Your task to perform on an android device: turn off notifications in google photos Image 0: 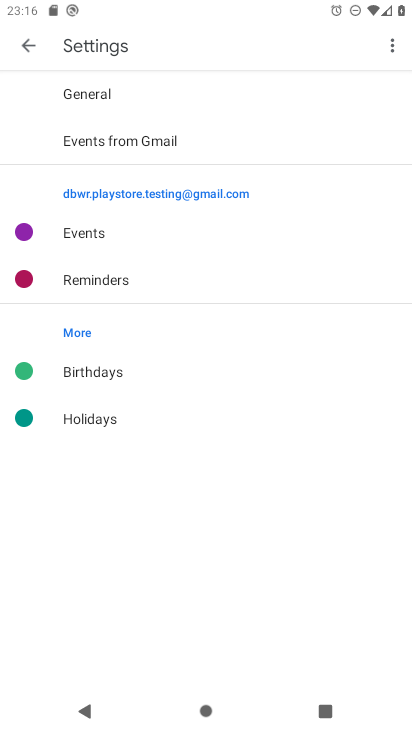
Step 0: press home button
Your task to perform on an android device: turn off notifications in google photos Image 1: 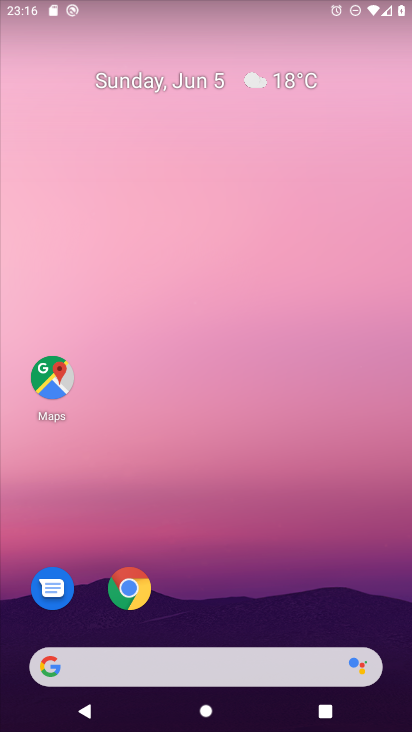
Step 1: drag from (301, 577) to (351, 161)
Your task to perform on an android device: turn off notifications in google photos Image 2: 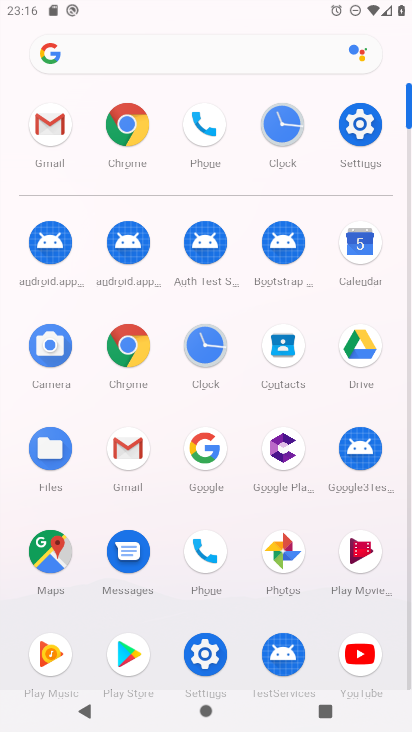
Step 2: click (289, 543)
Your task to perform on an android device: turn off notifications in google photos Image 3: 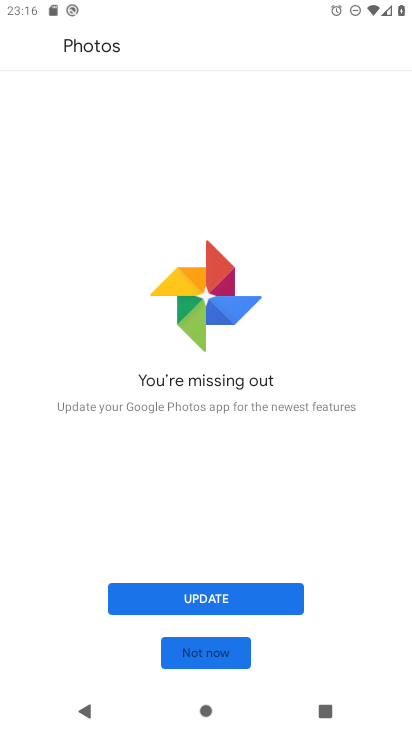
Step 3: click (267, 603)
Your task to perform on an android device: turn off notifications in google photos Image 4: 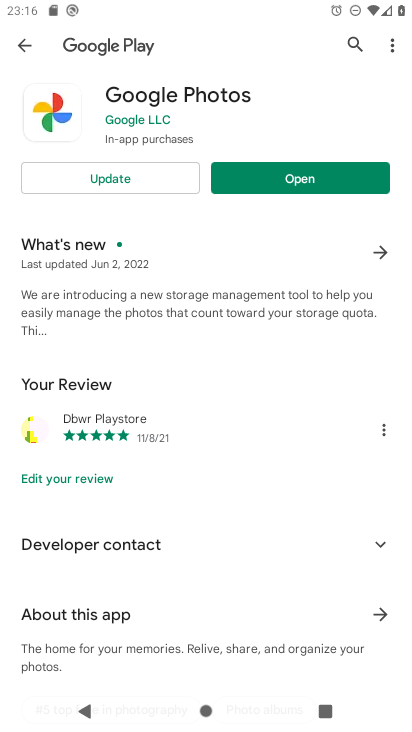
Step 4: click (131, 173)
Your task to perform on an android device: turn off notifications in google photos Image 5: 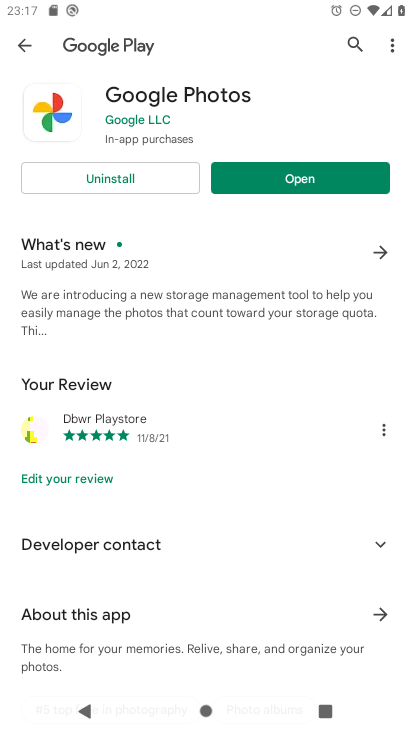
Step 5: click (322, 169)
Your task to perform on an android device: turn off notifications in google photos Image 6: 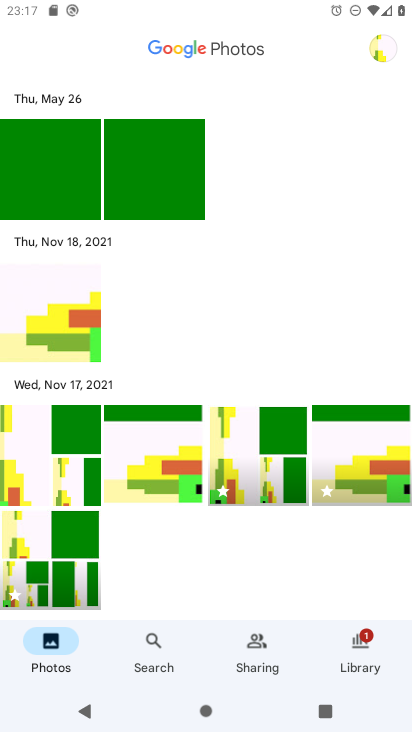
Step 6: click (388, 52)
Your task to perform on an android device: turn off notifications in google photos Image 7: 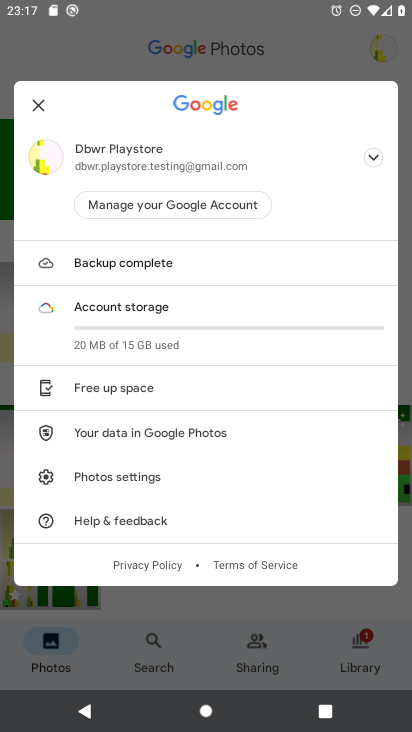
Step 7: click (153, 475)
Your task to perform on an android device: turn off notifications in google photos Image 8: 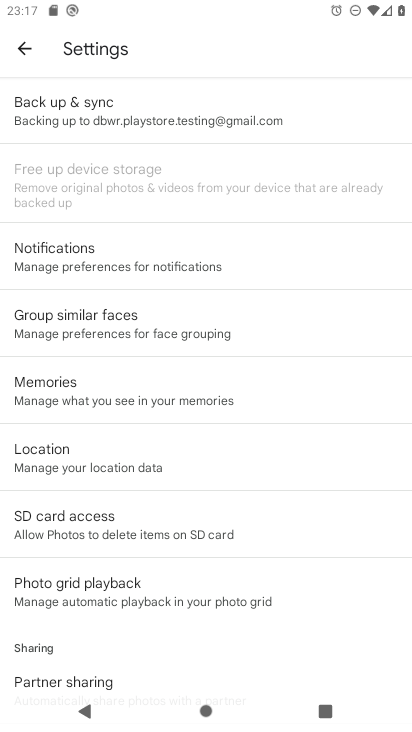
Step 8: click (243, 274)
Your task to perform on an android device: turn off notifications in google photos Image 9: 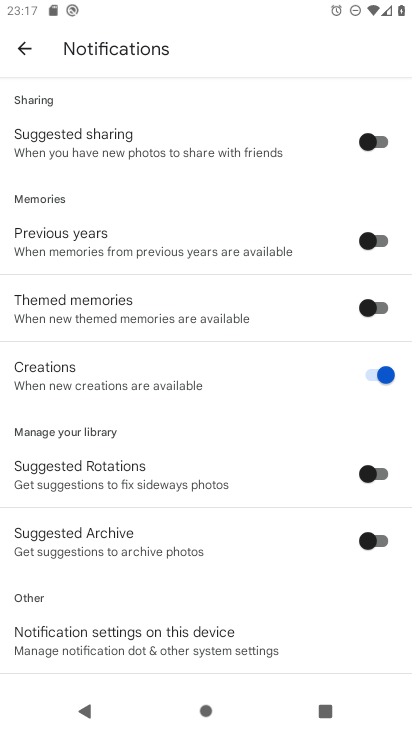
Step 9: drag from (263, 487) to (276, 355)
Your task to perform on an android device: turn off notifications in google photos Image 10: 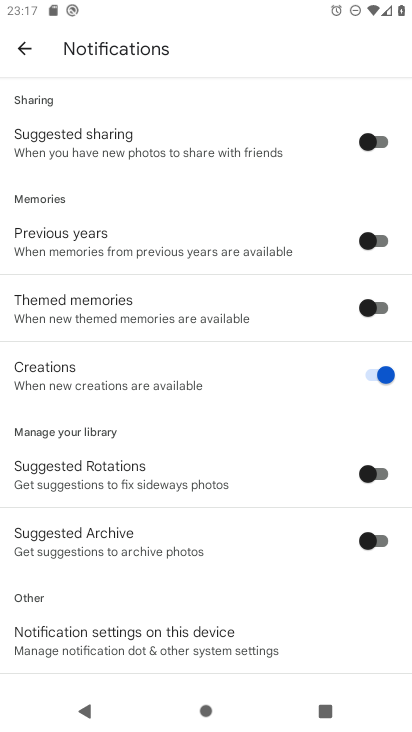
Step 10: click (299, 650)
Your task to perform on an android device: turn off notifications in google photos Image 11: 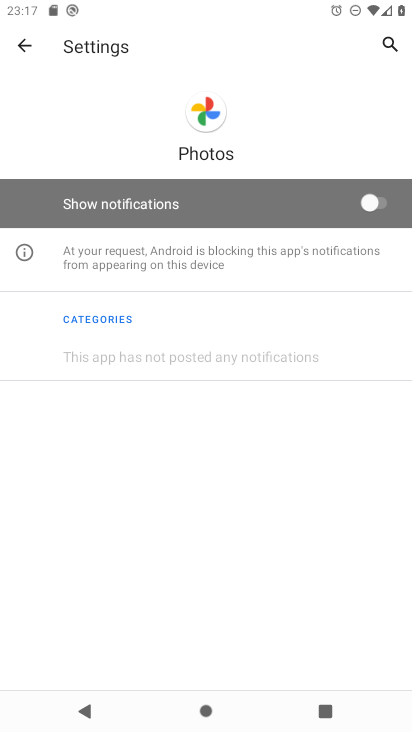
Step 11: task complete